Your task to perform on an android device: Open Google Chrome and open the bookmarks view Image 0: 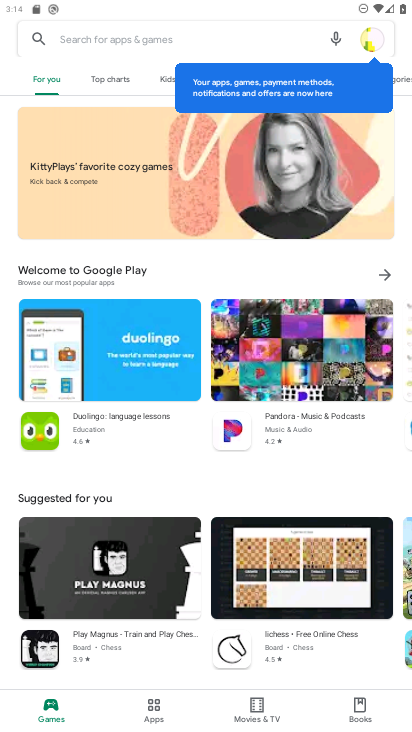
Step 0: press home button
Your task to perform on an android device: Open Google Chrome and open the bookmarks view Image 1: 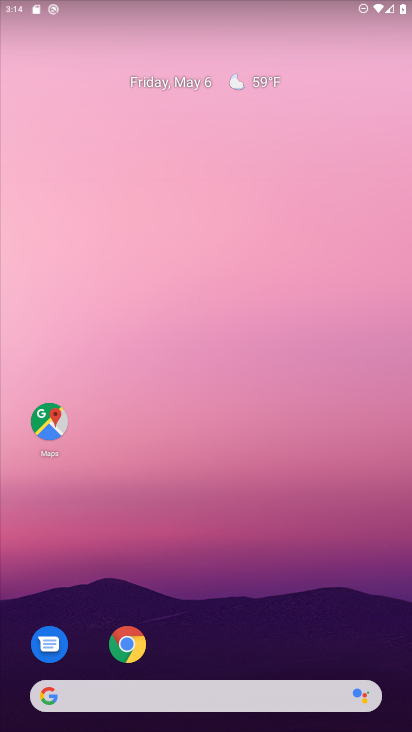
Step 1: click (118, 646)
Your task to perform on an android device: Open Google Chrome and open the bookmarks view Image 2: 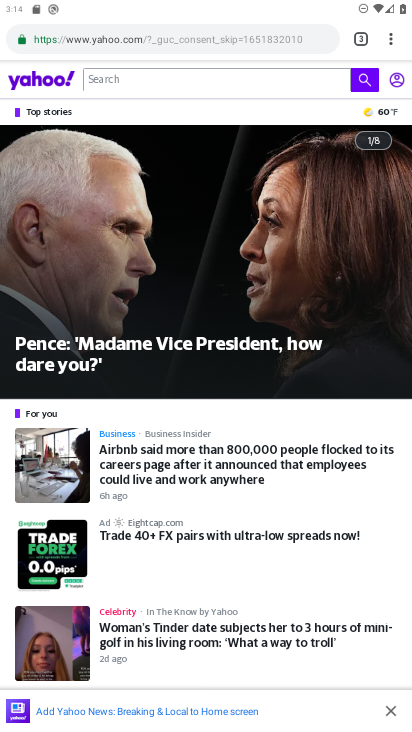
Step 2: task complete